Your task to perform on an android device: Open Youtube and go to "Your channel" Image 0: 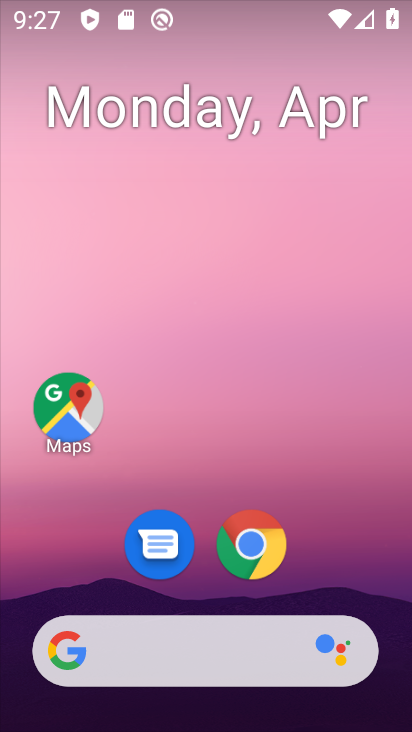
Step 0: drag from (380, 579) to (328, 188)
Your task to perform on an android device: Open Youtube and go to "Your channel" Image 1: 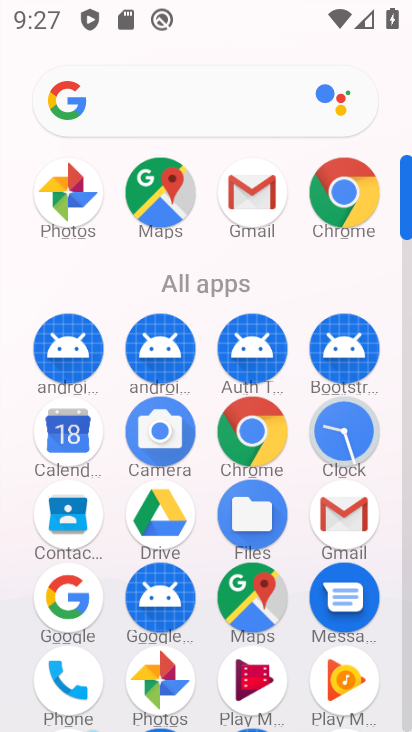
Step 1: click (408, 701)
Your task to perform on an android device: Open Youtube and go to "Your channel" Image 2: 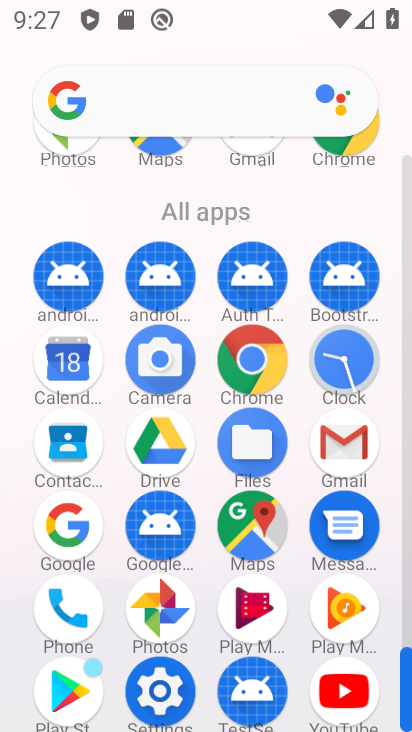
Step 2: click (358, 687)
Your task to perform on an android device: Open Youtube and go to "Your channel" Image 3: 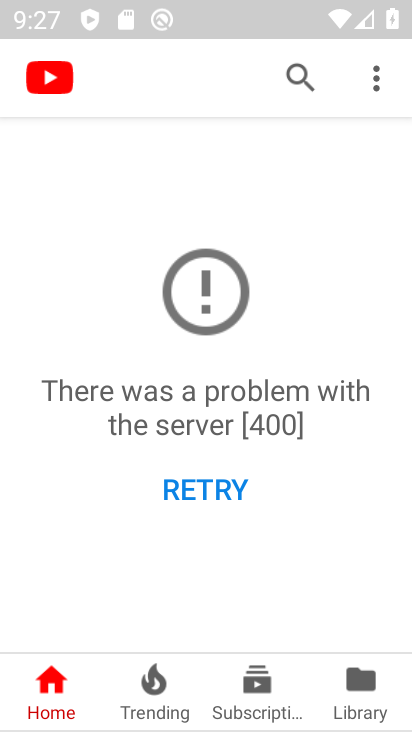
Step 3: click (367, 699)
Your task to perform on an android device: Open Youtube and go to "Your channel" Image 4: 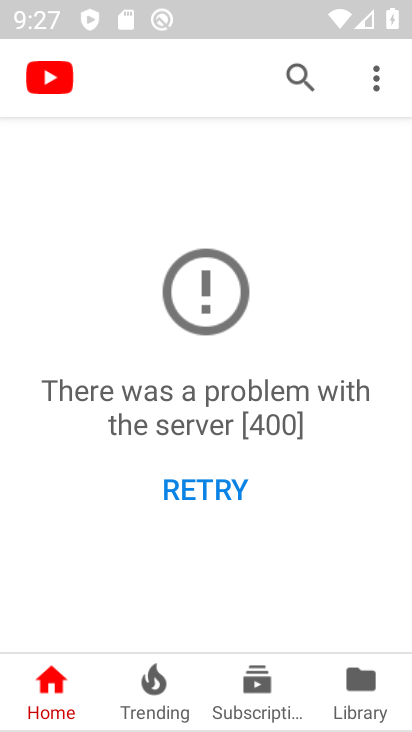
Step 4: click (360, 681)
Your task to perform on an android device: Open Youtube and go to "Your channel" Image 5: 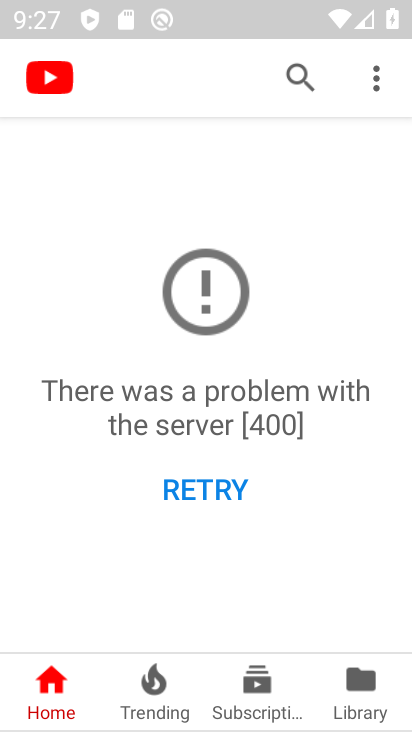
Step 5: click (358, 681)
Your task to perform on an android device: Open Youtube and go to "Your channel" Image 6: 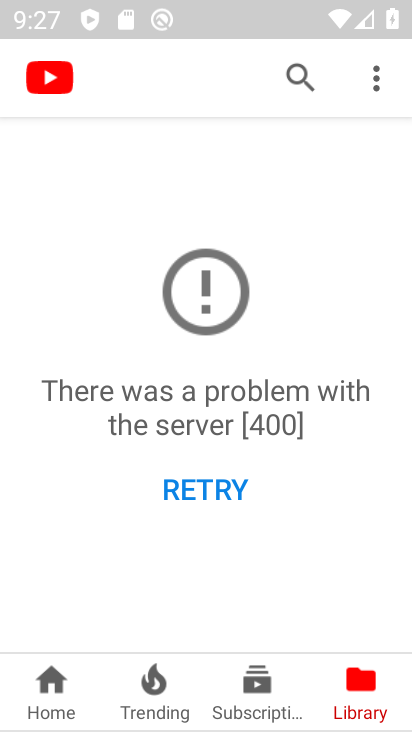
Step 6: click (227, 489)
Your task to perform on an android device: Open Youtube and go to "Your channel" Image 7: 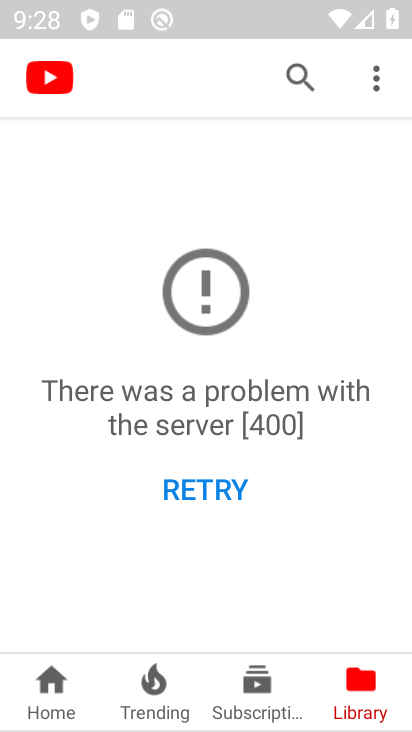
Step 7: click (226, 490)
Your task to perform on an android device: Open Youtube and go to "Your channel" Image 8: 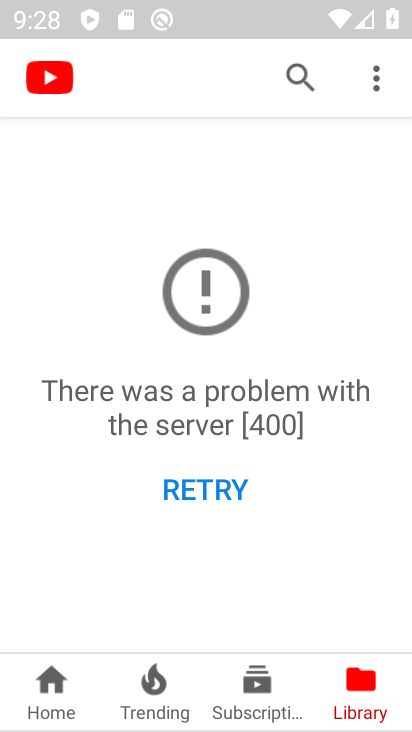
Step 8: task complete